Your task to perform on an android device: Turn off the flashlight Image 0: 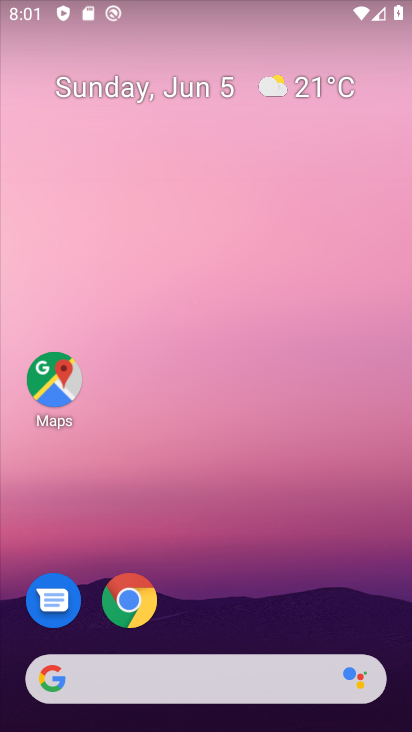
Step 0: drag from (276, 617) to (277, 4)
Your task to perform on an android device: Turn off the flashlight Image 1: 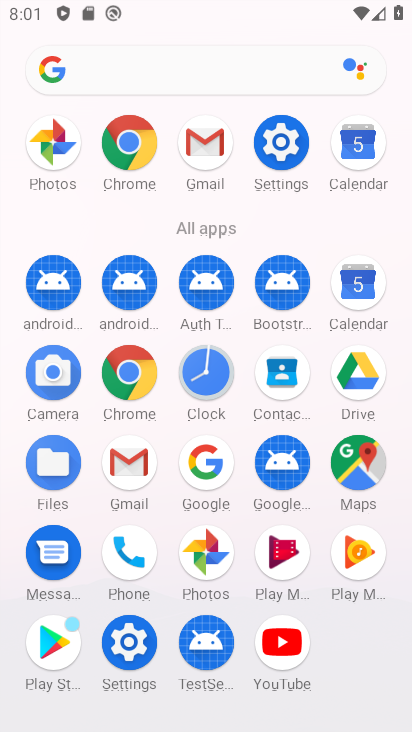
Step 1: click (128, 632)
Your task to perform on an android device: Turn off the flashlight Image 2: 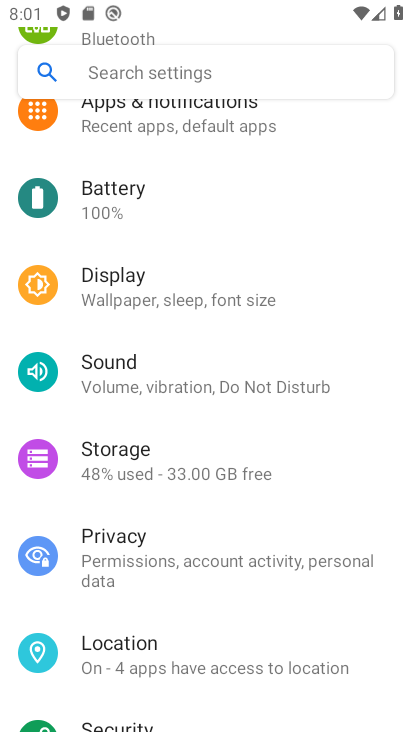
Step 2: task complete